Your task to perform on an android device: toggle location history Image 0: 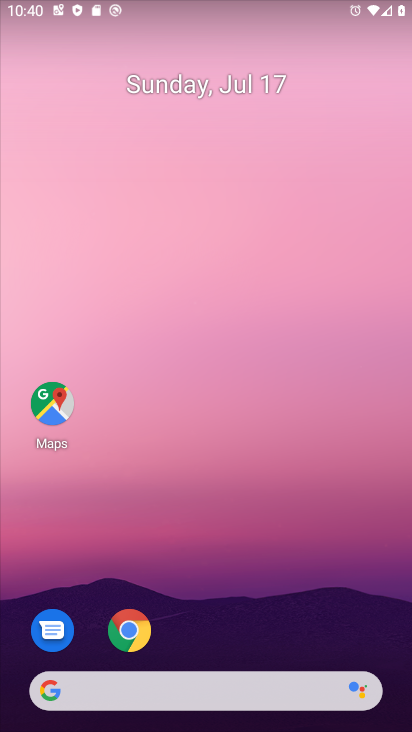
Step 0: drag from (353, 615) to (353, 86)
Your task to perform on an android device: toggle location history Image 1: 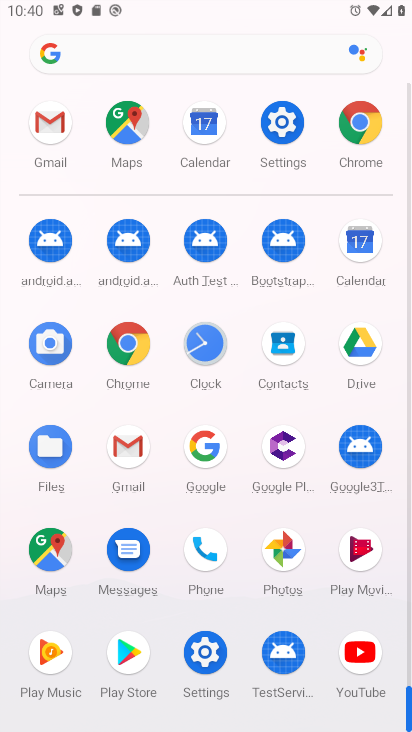
Step 1: click (278, 124)
Your task to perform on an android device: toggle location history Image 2: 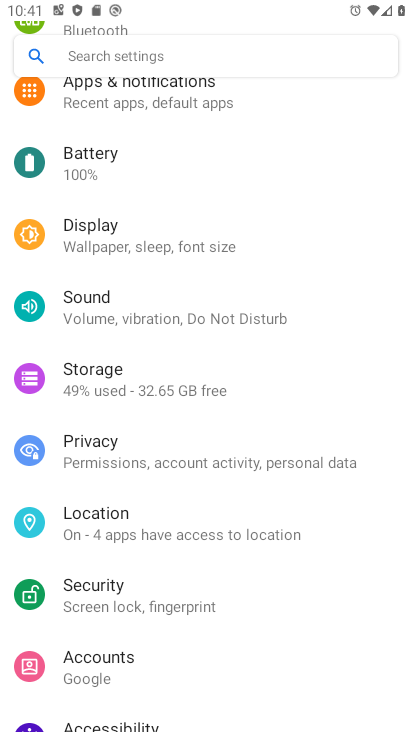
Step 2: drag from (359, 375) to (376, 269)
Your task to perform on an android device: toggle location history Image 3: 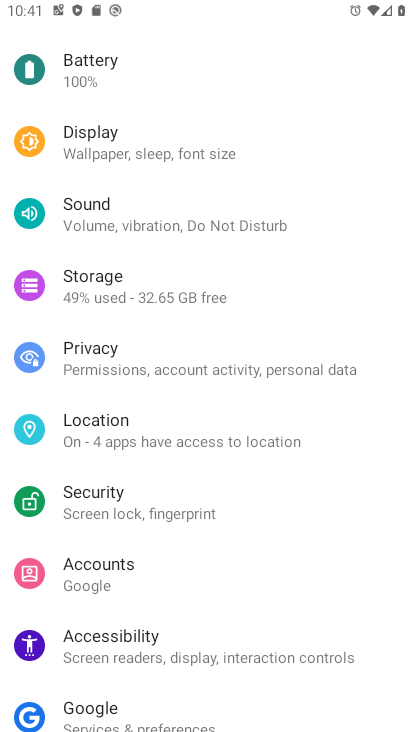
Step 3: drag from (366, 495) to (380, 411)
Your task to perform on an android device: toggle location history Image 4: 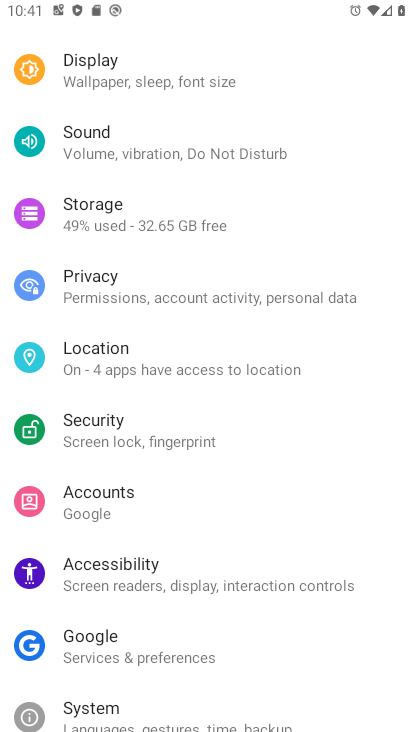
Step 4: drag from (365, 506) to (367, 404)
Your task to perform on an android device: toggle location history Image 5: 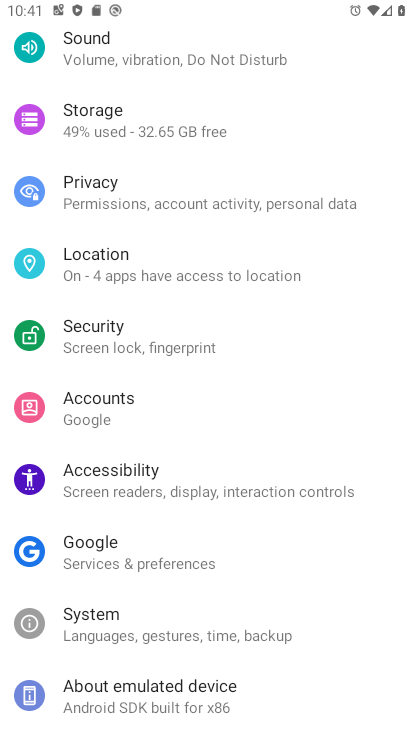
Step 5: drag from (373, 550) to (373, 468)
Your task to perform on an android device: toggle location history Image 6: 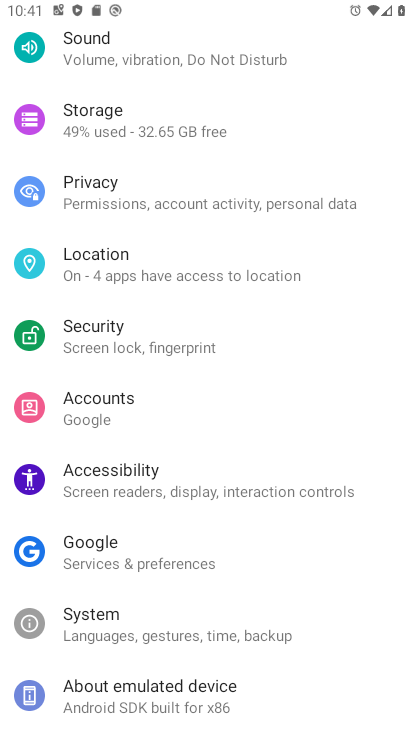
Step 6: drag from (357, 339) to (349, 467)
Your task to perform on an android device: toggle location history Image 7: 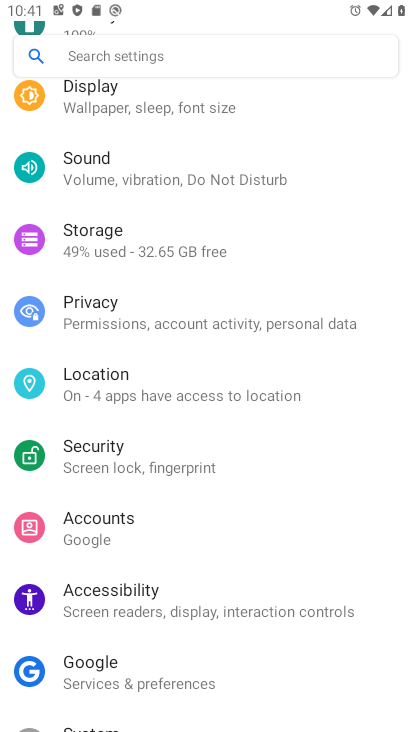
Step 7: click (264, 399)
Your task to perform on an android device: toggle location history Image 8: 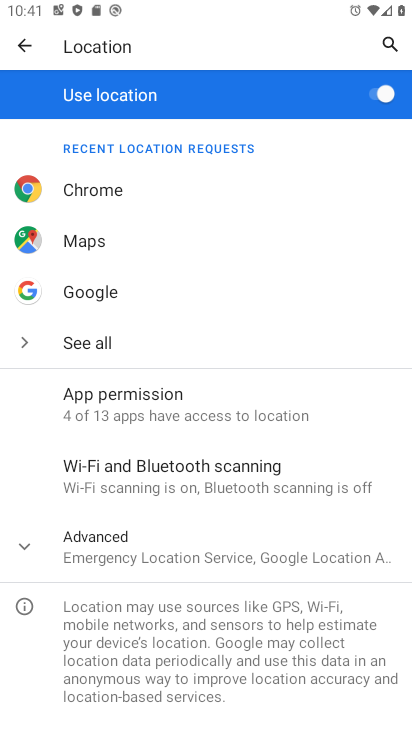
Step 8: click (169, 553)
Your task to perform on an android device: toggle location history Image 9: 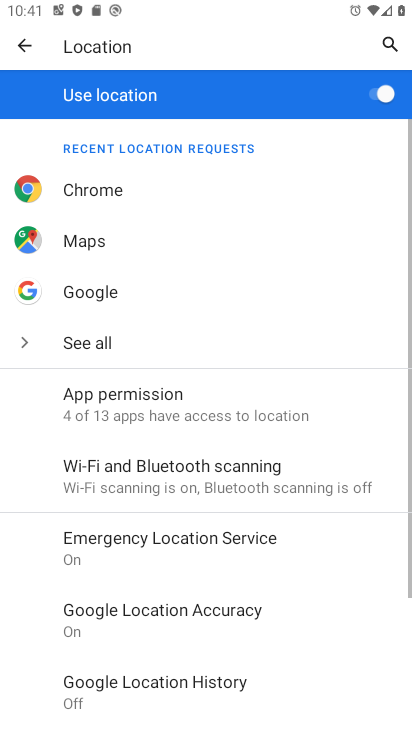
Step 9: drag from (265, 573) to (279, 462)
Your task to perform on an android device: toggle location history Image 10: 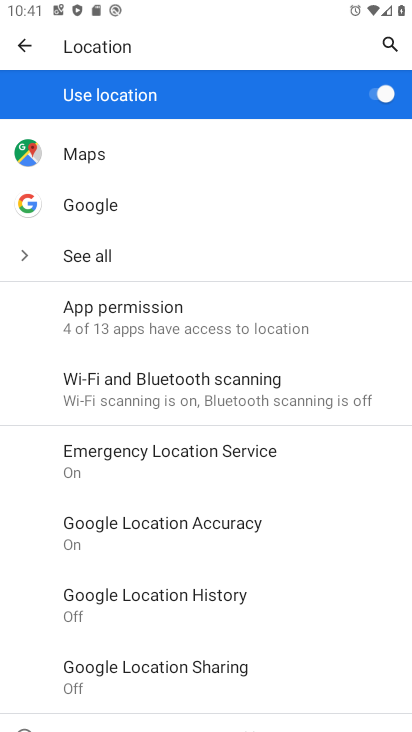
Step 10: drag from (330, 602) to (325, 483)
Your task to perform on an android device: toggle location history Image 11: 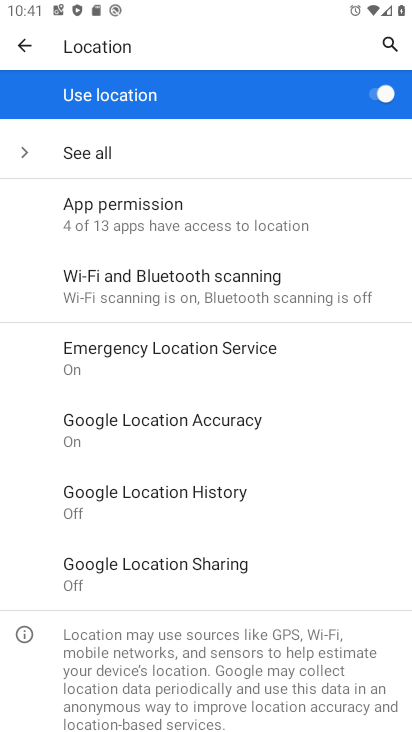
Step 11: drag from (307, 573) to (308, 429)
Your task to perform on an android device: toggle location history Image 12: 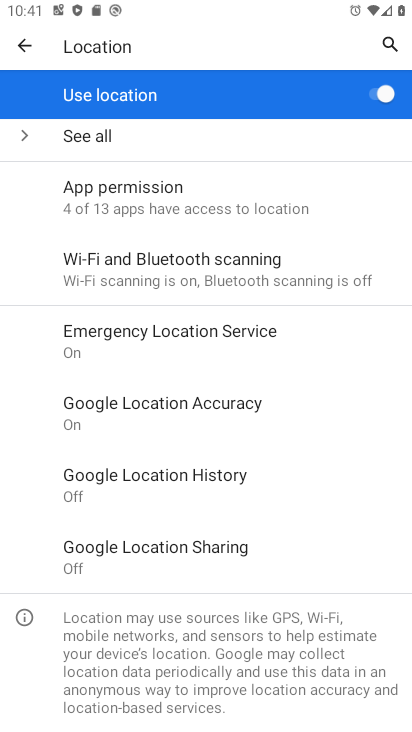
Step 12: click (222, 481)
Your task to perform on an android device: toggle location history Image 13: 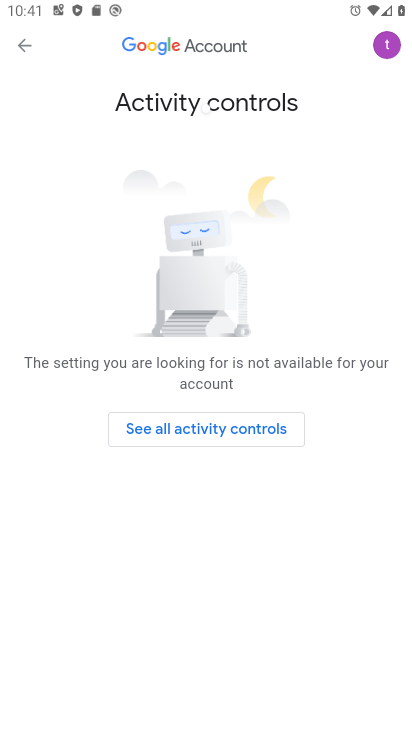
Step 13: click (227, 427)
Your task to perform on an android device: toggle location history Image 14: 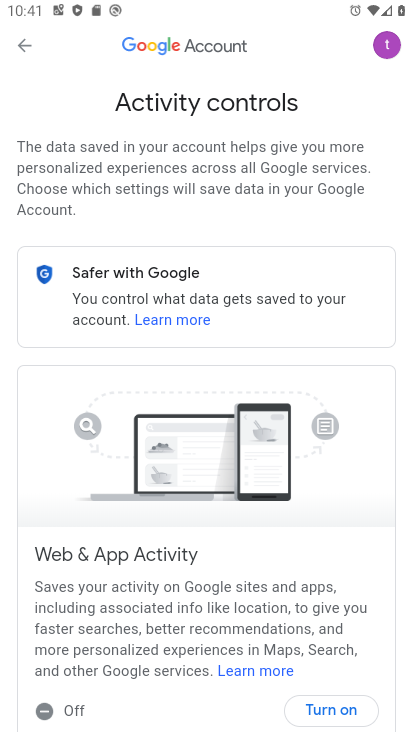
Step 14: drag from (274, 557) to (283, 317)
Your task to perform on an android device: toggle location history Image 15: 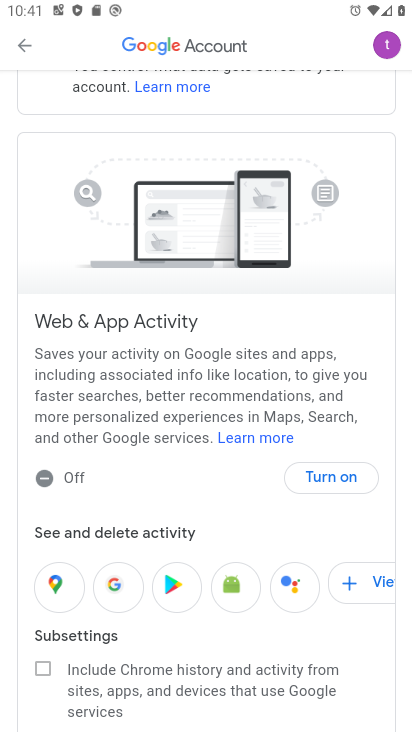
Step 15: click (329, 469)
Your task to perform on an android device: toggle location history Image 16: 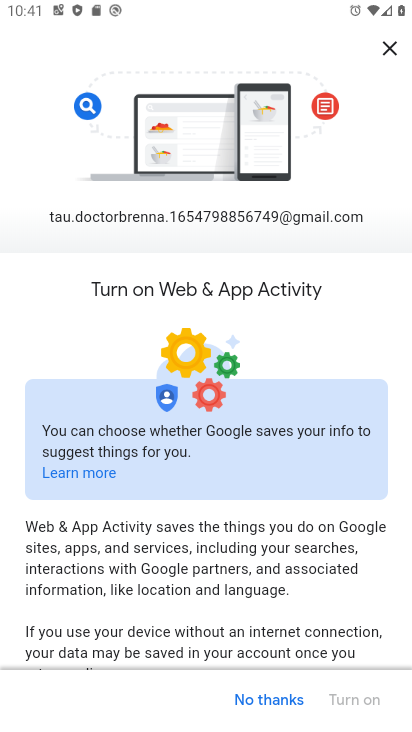
Step 16: drag from (320, 568) to (319, 387)
Your task to perform on an android device: toggle location history Image 17: 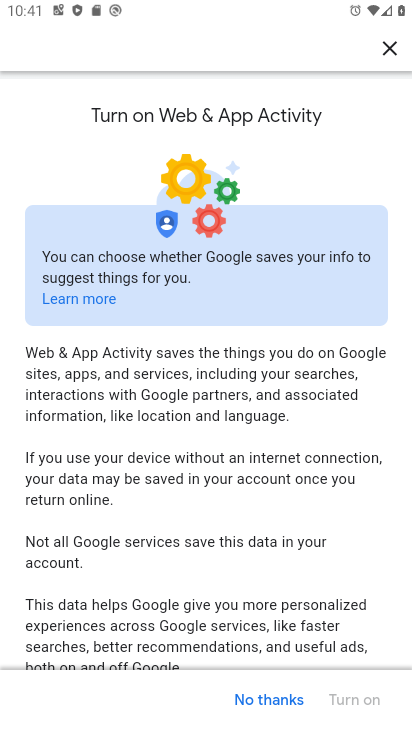
Step 17: drag from (310, 553) to (312, 429)
Your task to perform on an android device: toggle location history Image 18: 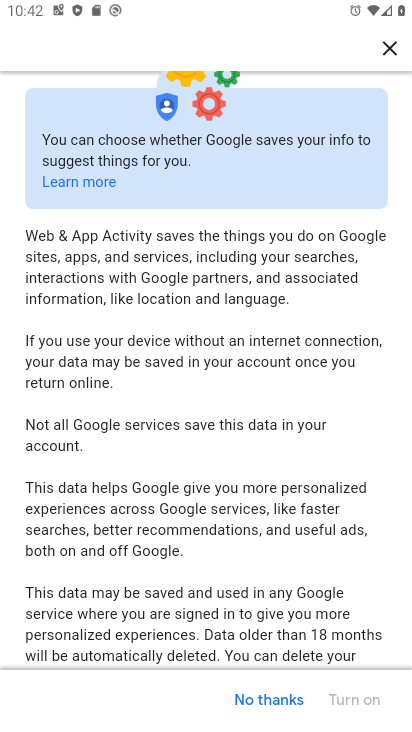
Step 18: drag from (321, 609) to (325, 456)
Your task to perform on an android device: toggle location history Image 19: 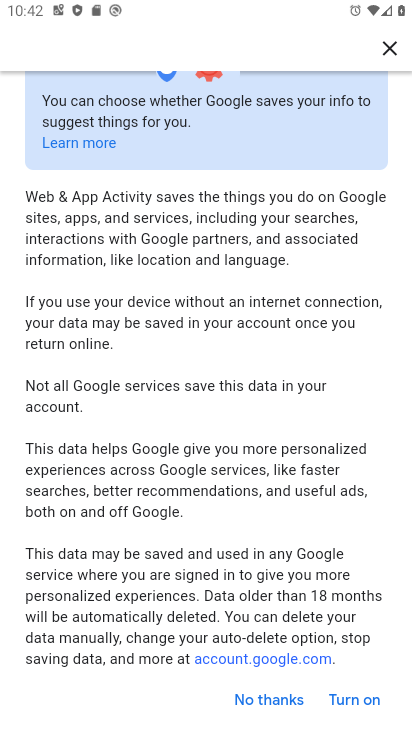
Step 19: click (352, 702)
Your task to perform on an android device: toggle location history Image 20: 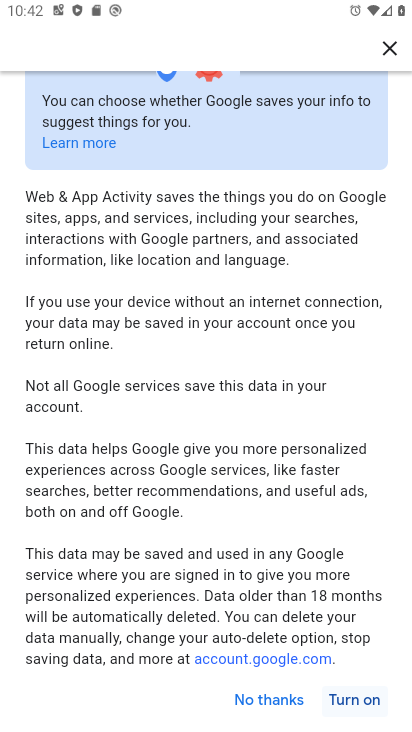
Step 20: drag from (334, 573) to (322, 431)
Your task to perform on an android device: toggle location history Image 21: 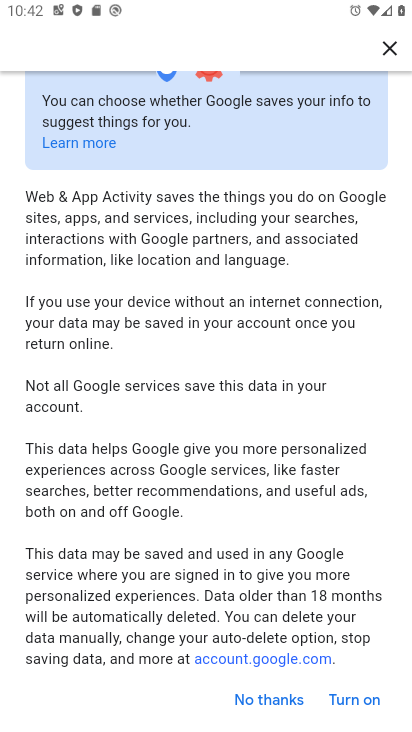
Step 21: click (350, 695)
Your task to perform on an android device: toggle location history Image 22: 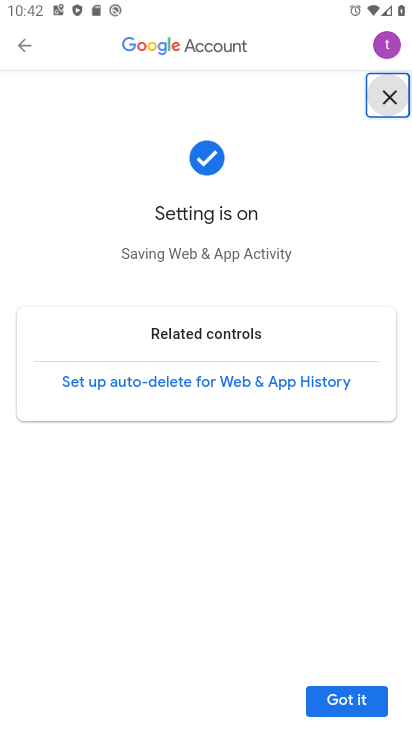
Step 22: task complete